Your task to perform on an android device: turn on the 24-hour format for clock Image 0: 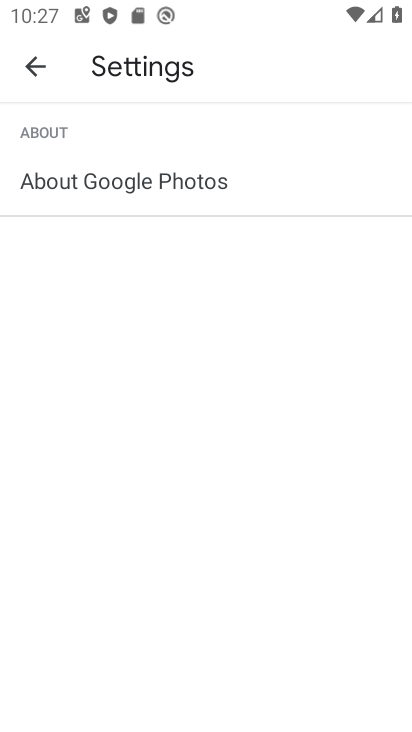
Step 0: press home button
Your task to perform on an android device: turn on the 24-hour format for clock Image 1: 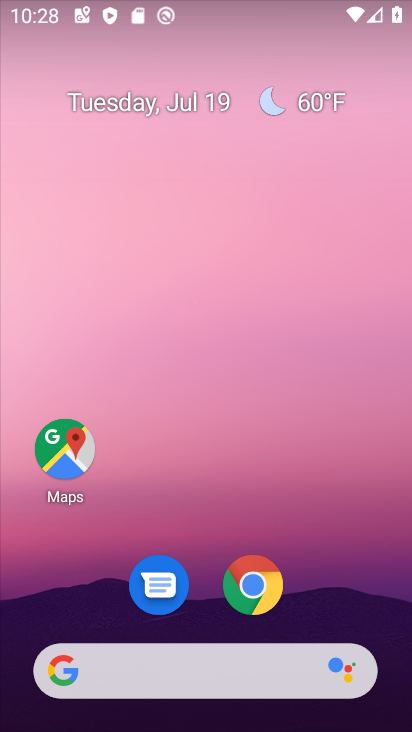
Step 1: drag from (311, 574) to (360, 65)
Your task to perform on an android device: turn on the 24-hour format for clock Image 2: 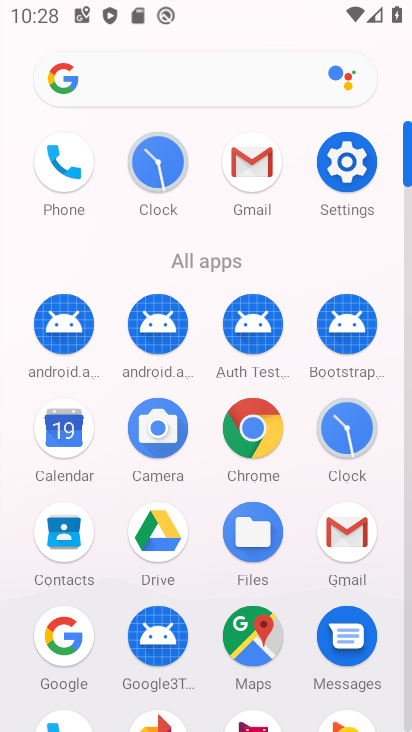
Step 2: click (163, 166)
Your task to perform on an android device: turn on the 24-hour format for clock Image 3: 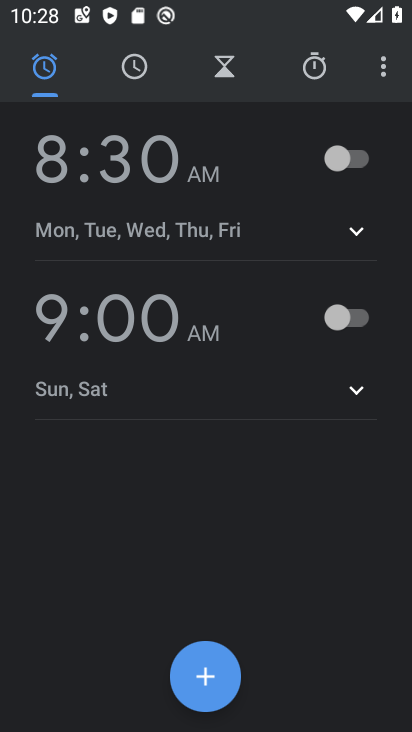
Step 3: click (380, 70)
Your task to perform on an android device: turn on the 24-hour format for clock Image 4: 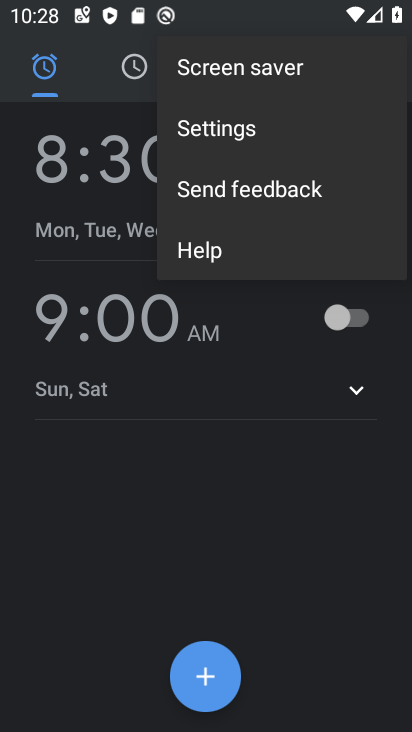
Step 4: click (242, 132)
Your task to perform on an android device: turn on the 24-hour format for clock Image 5: 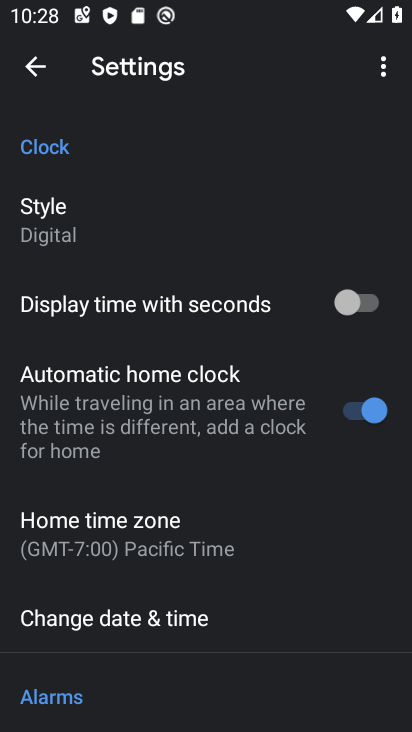
Step 5: click (240, 620)
Your task to perform on an android device: turn on the 24-hour format for clock Image 6: 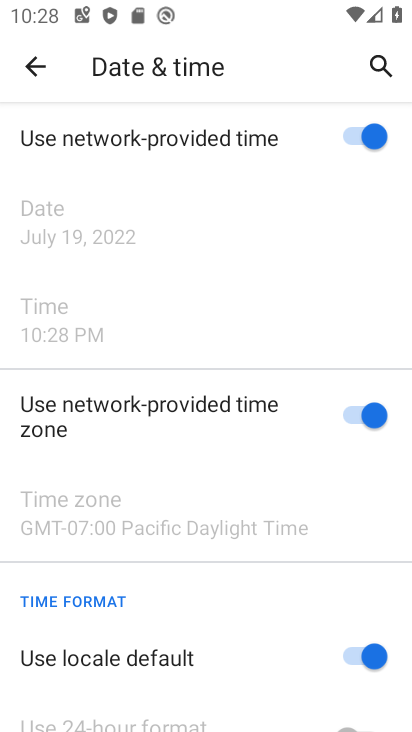
Step 6: drag from (253, 602) to (295, 373)
Your task to perform on an android device: turn on the 24-hour format for clock Image 7: 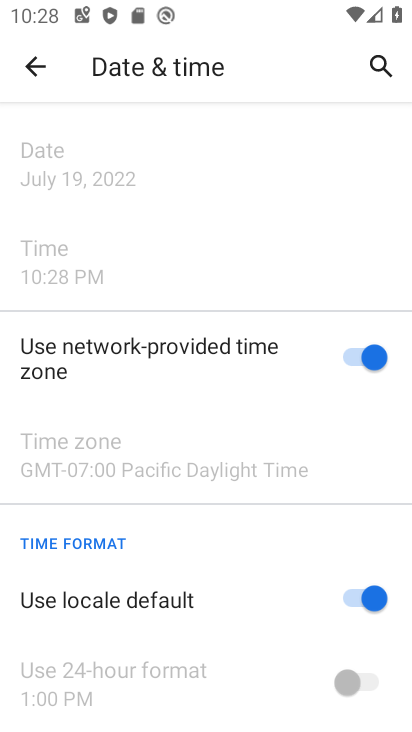
Step 7: click (356, 594)
Your task to perform on an android device: turn on the 24-hour format for clock Image 8: 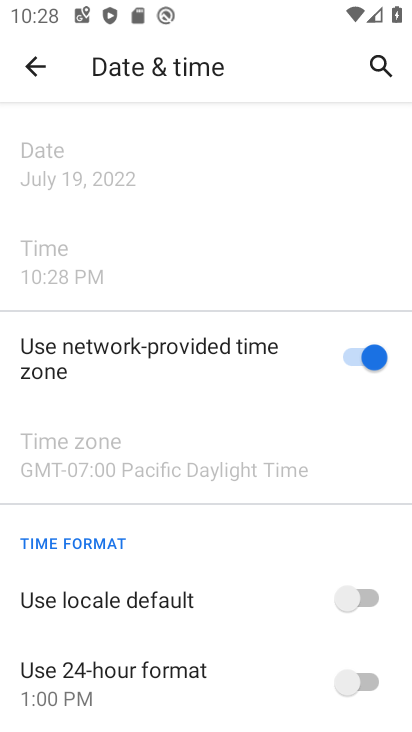
Step 8: click (372, 688)
Your task to perform on an android device: turn on the 24-hour format for clock Image 9: 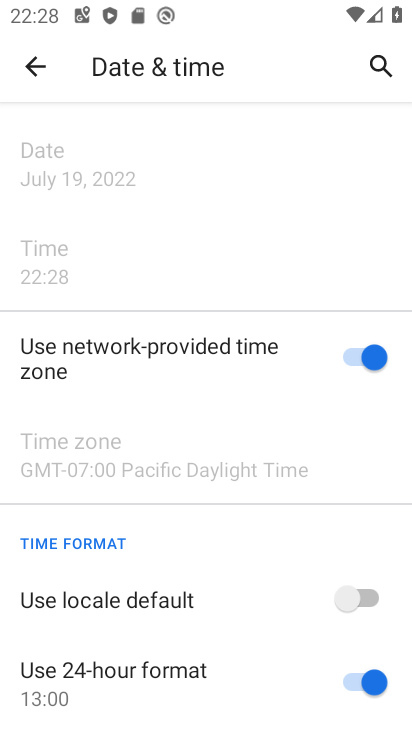
Step 9: task complete